Your task to perform on an android device: When is my next appointment? Image 0: 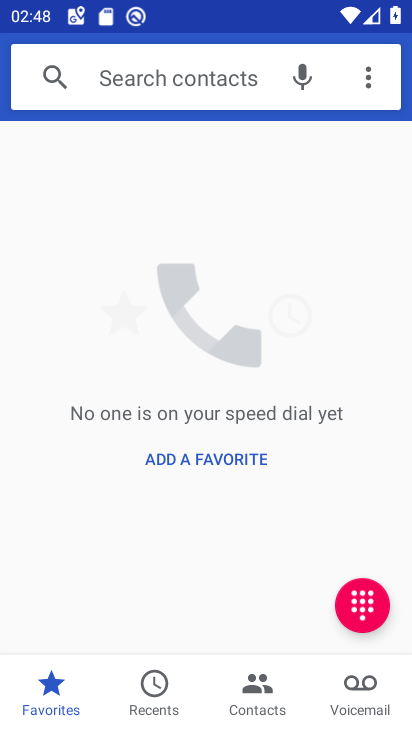
Step 0: press home button
Your task to perform on an android device: When is my next appointment? Image 1: 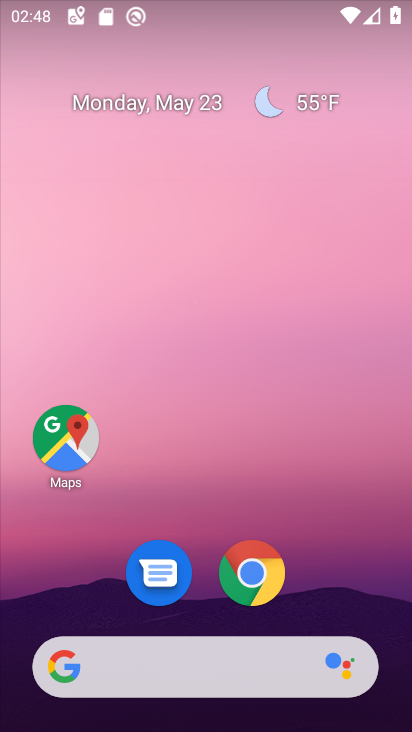
Step 1: drag from (395, 360) to (344, 162)
Your task to perform on an android device: When is my next appointment? Image 2: 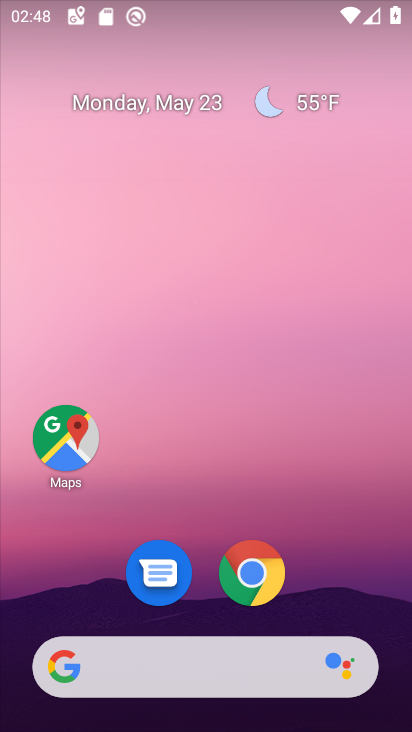
Step 2: drag from (339, 565) to (324, 86)
Your task to perform on an android device: When is my next appointment? Image 3: 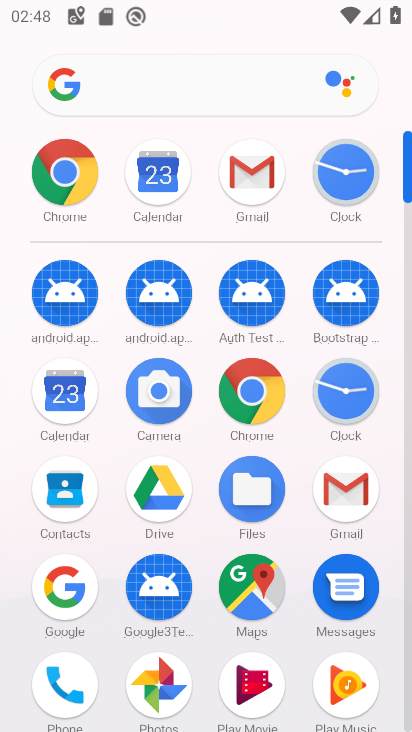
Step 3: click (168, 169)
Your task to perform on an android device: When is my next appointment? Image 4: 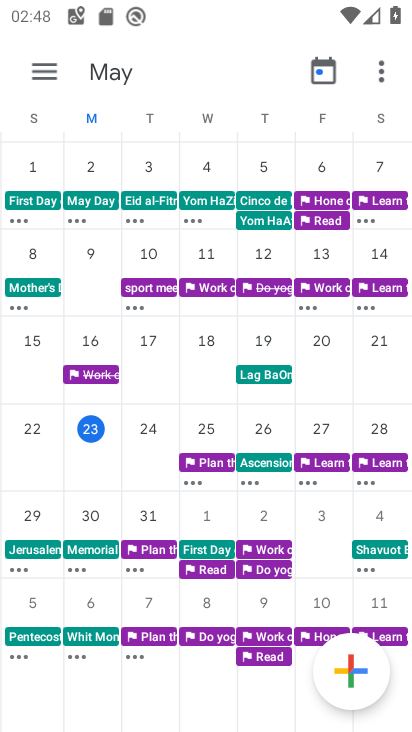
Step 4: click (51, 68)
Your task to perform on an android device: When is my next appointment? Image 5: 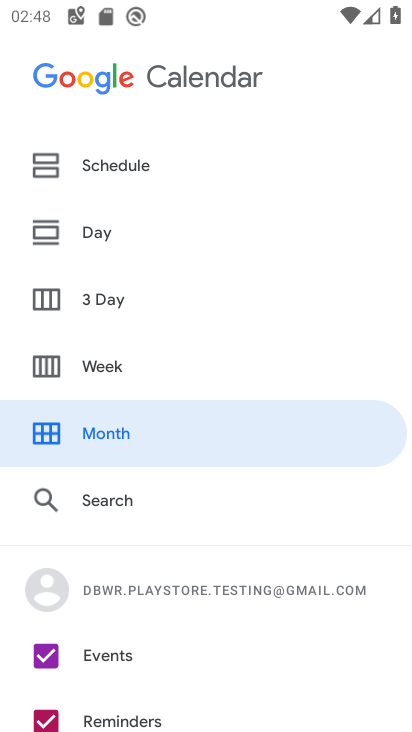
Step 5: click (104, 167)
Your task to perform on an android device: When is my next appointment? Image 6: 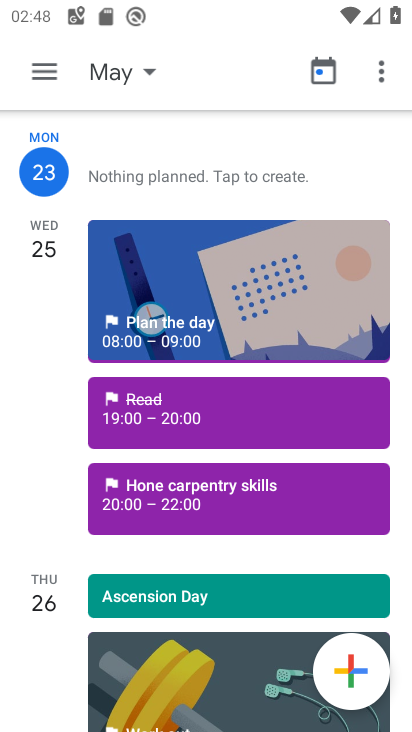
Step 6: task complete